Your task to perform on an android device: Open Google Chrome Image 0: 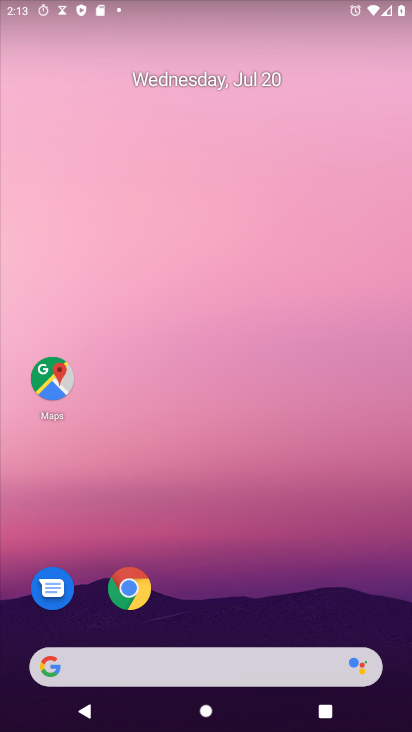
Step 0: drag from (247, 672) to (241, 10)
Your task to perform on an android device: Open Google Chrome Image 1: 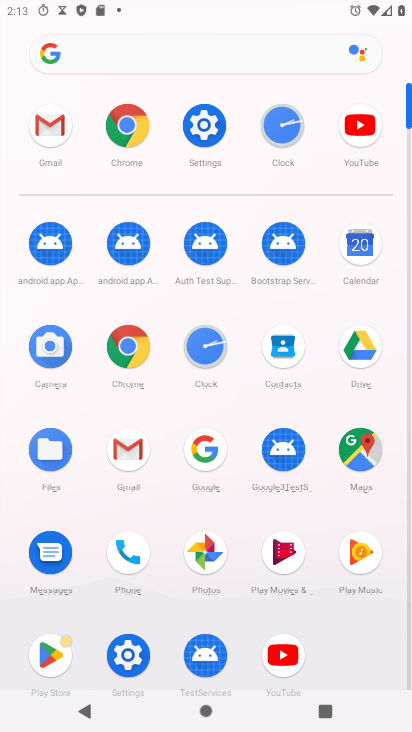
Step 1: click (129, 349)
Your task to perform on an android device: Open Google Chrome Image 2: 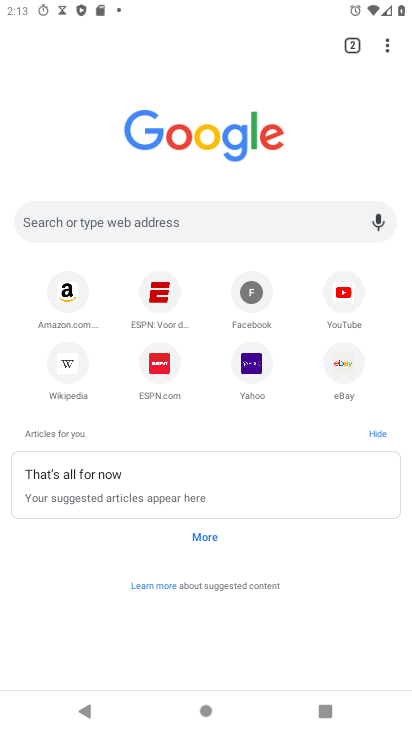
Step 2: task complete